Your task to perform on an android device: Go to Yahoo.com Image 0: 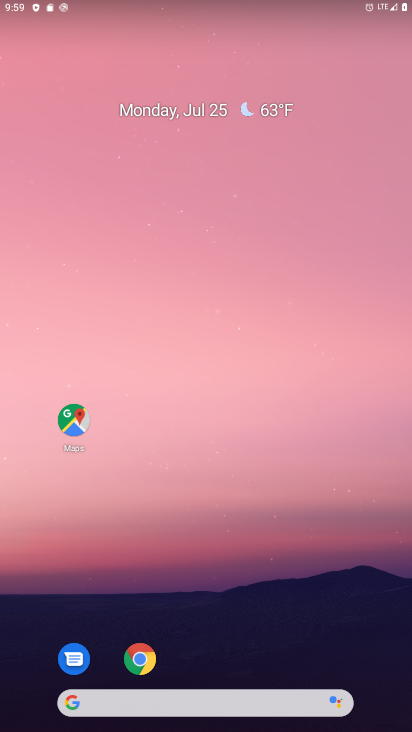
Step 0: click (143, 657)
Your task to perform on an android device: Go to Yahoo.com Image 1: 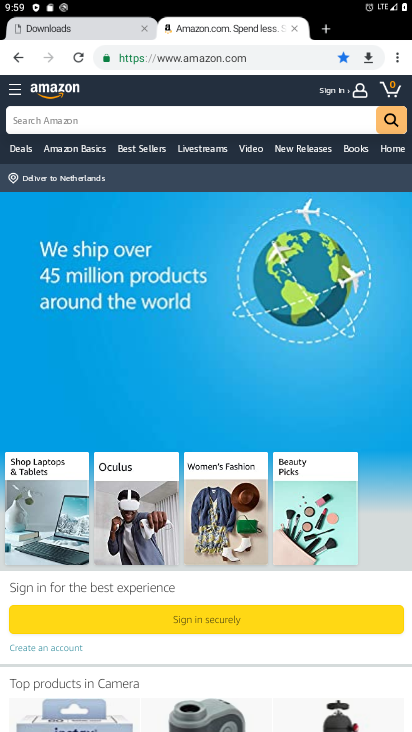
Step 1: click (396, 62)
Your task to perform on an android device: Go to Yahoo.com Image 2: 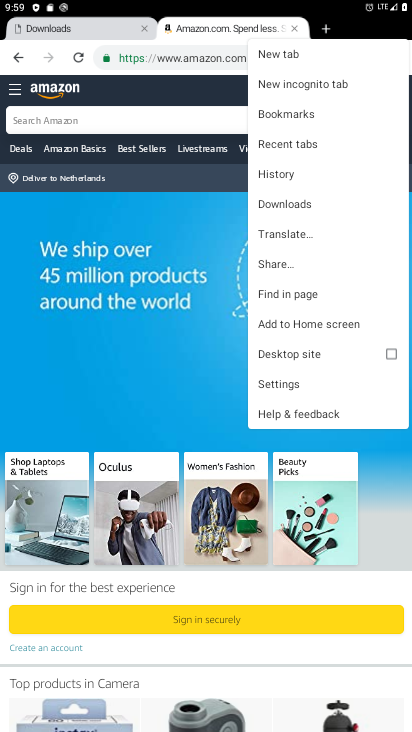
Step 2: click (281, 52)
Your task to perform on an android device: Go to Yahoo.com Image 3: 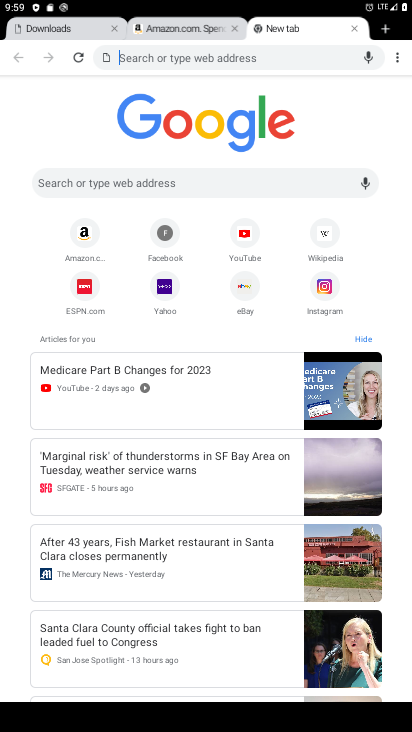
Step 3: click (162, 288)
Your task to perform on an android device: Go to Yahoo.com Image 4: 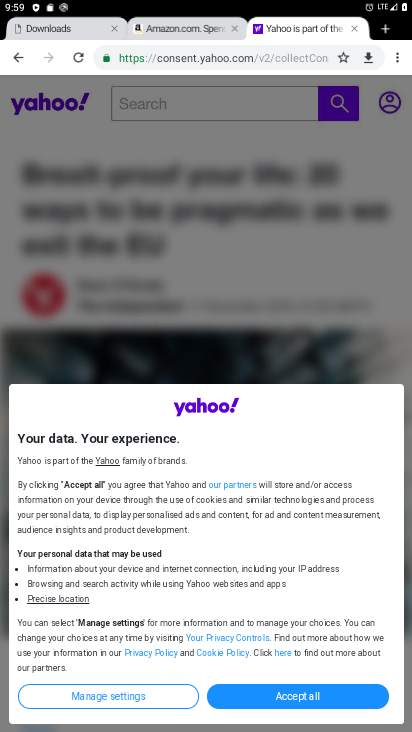
Step 4: click (301, 689)
Your task to perform on an android device: Go to Yahoo.com Image 5: 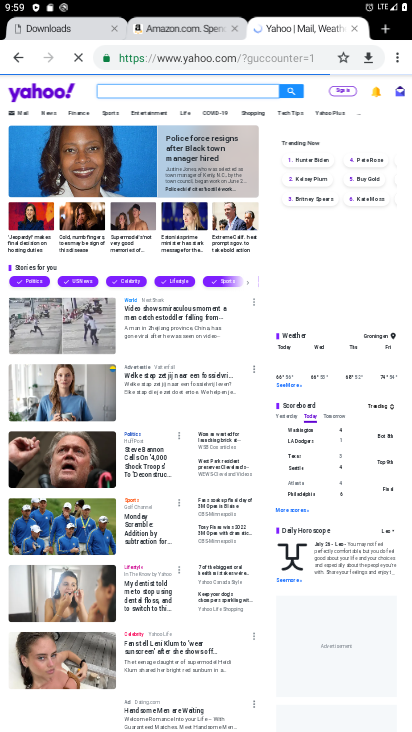
Step 5: task complete